Your task to perform on an android device: open app "Grab" (install if not already installed) and go to login screen Image 0: 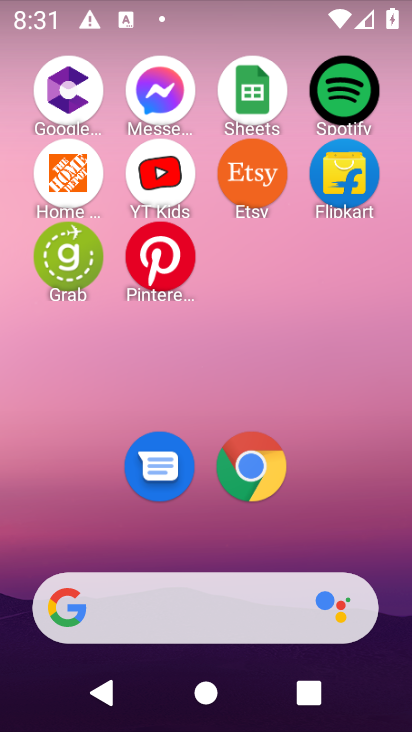
Step 0: task complete